Your task to perform on an android device: Clear all items from cart on walmart. Search for logitech g502 on walmart, select the first entry, and add it to the cart. Image 0: 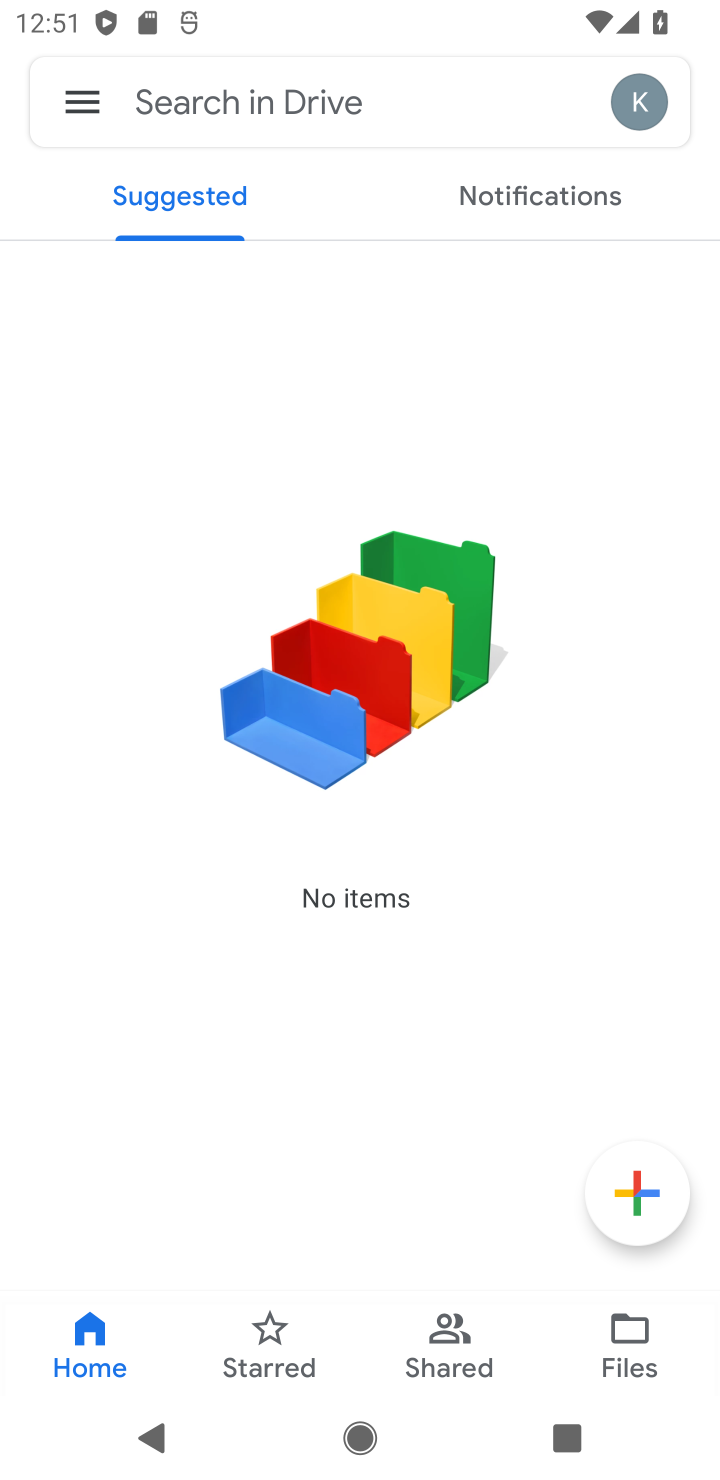
Step 0: press home button
Your task to perform on an android device: Clear all items from cart on walmart. Search for logitech g502 on walmart, select the first entry, and add it to the cart. Image 1: 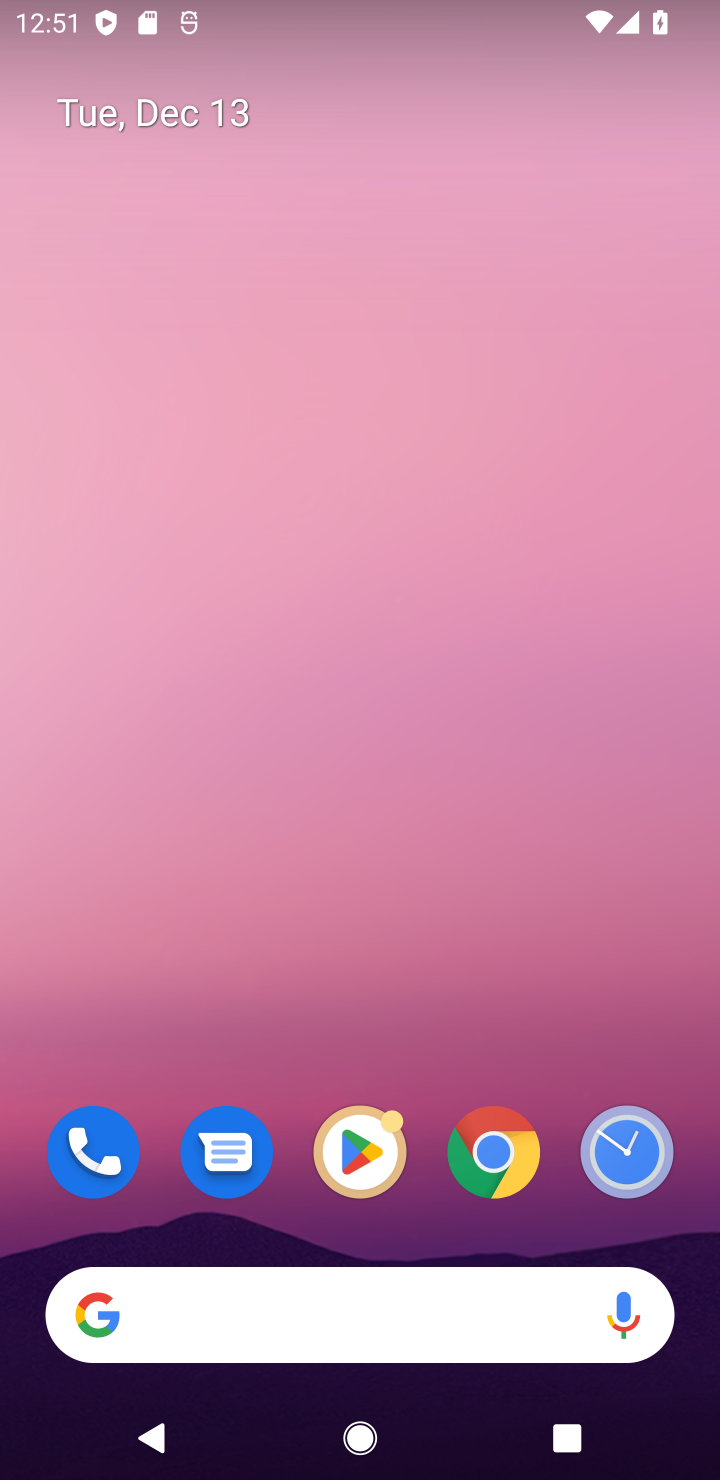
Step 1: drag from (379, 1158) to (374, 541)
Your task to perform on an android device: Clear all items from cart on walmart. Search for logitech g502 on walmart, select the first entry, and add it to the cart. Image 2: 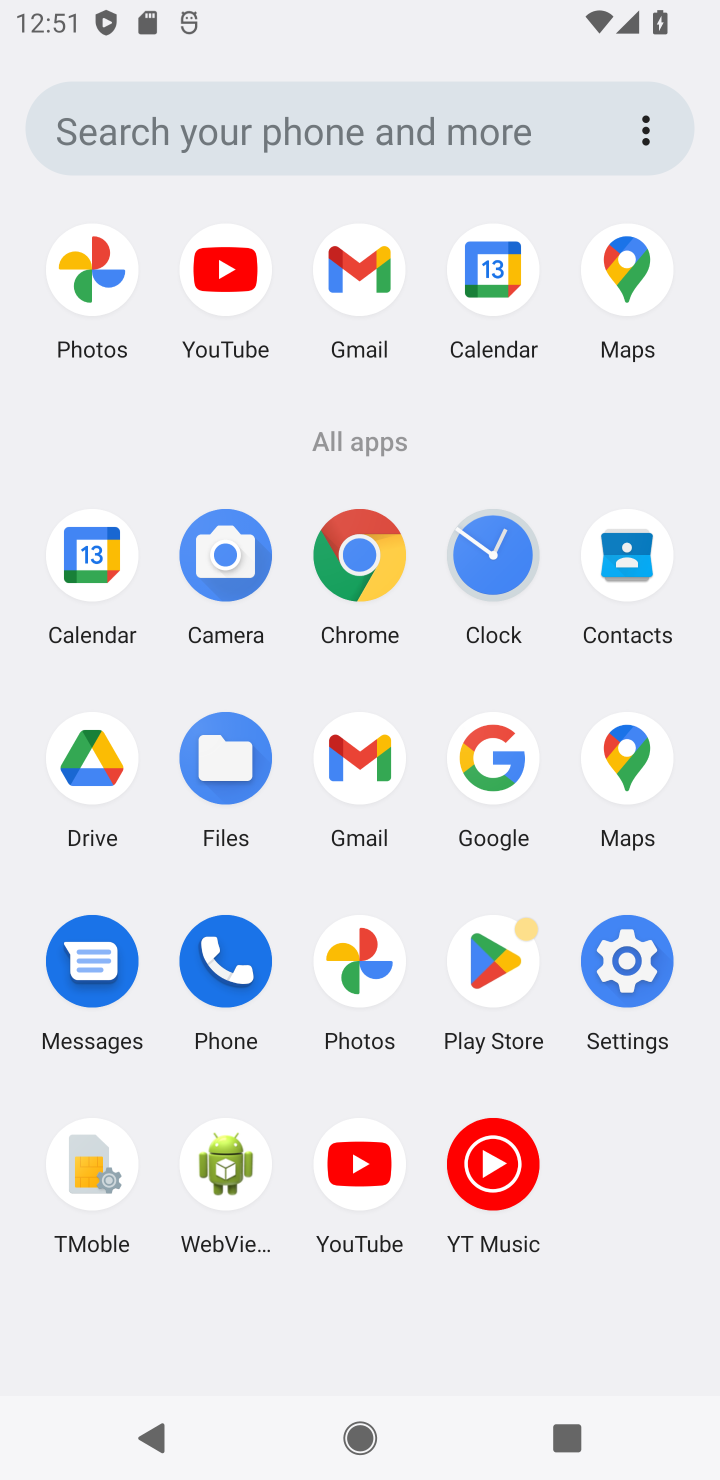
Step 2: click (491, 760)
Your task to perform on an android device: Clear all items from cart on walmart. Search for logitech g502 on walmart, select the first entry, and add it to the cart. Image 3: 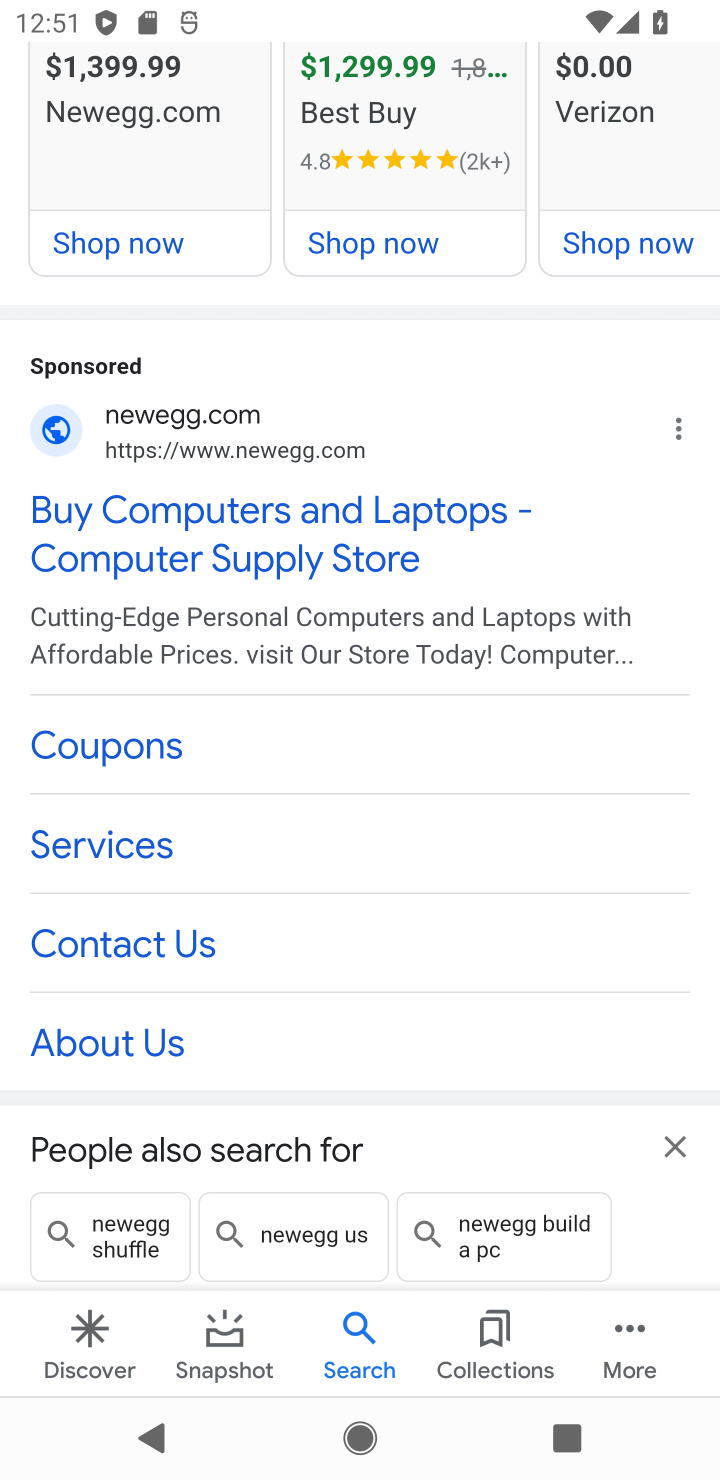
Step 3: drag from (270, 507) to (224, 1105)
Your task to perform on an android device: Clear all items from cart on walmart. Search for logitech g502 on walmart, select the first entry, and add it to the cart. Image 4: 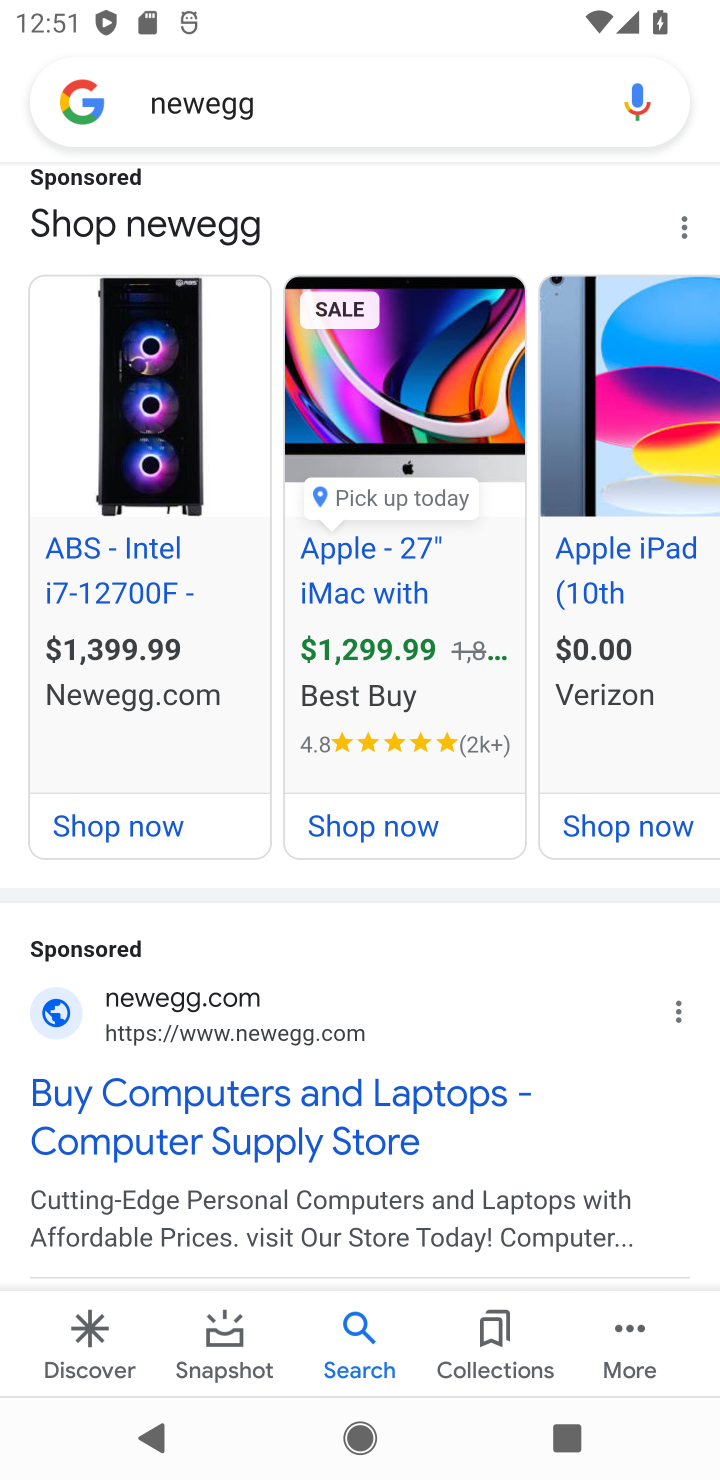
Step 4: drag from (311, 254) to (408, 928)
Your task to perform on an android device: Clear all items from cart on walmart. Search for logitech g502 on walmart, select the first entry, and add it to the cart. Image 5: 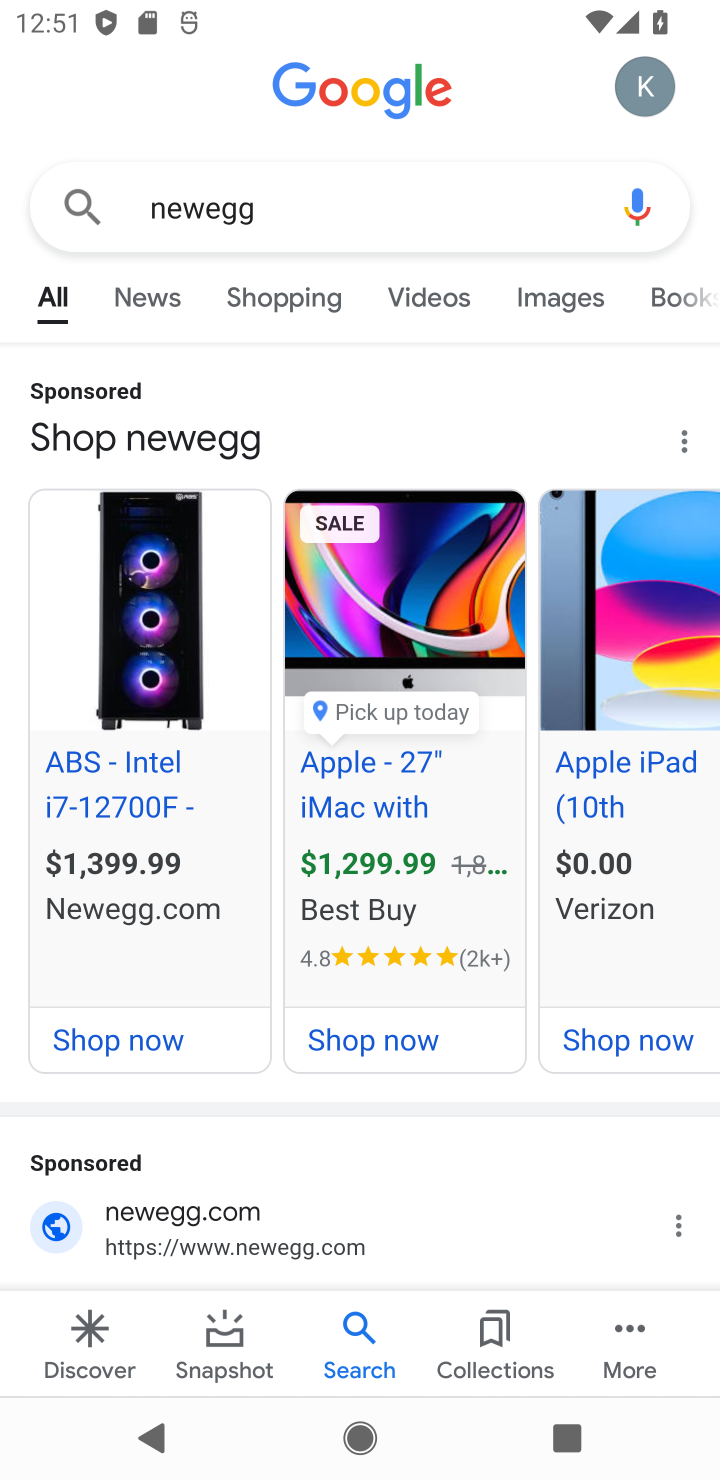
Step 5: click (236, 198)
Your task to perform on an android device: Clear all items from cart on walmart. Search for logitech g502 on walmart, select the first entry, and add it to the cart. Image 6: 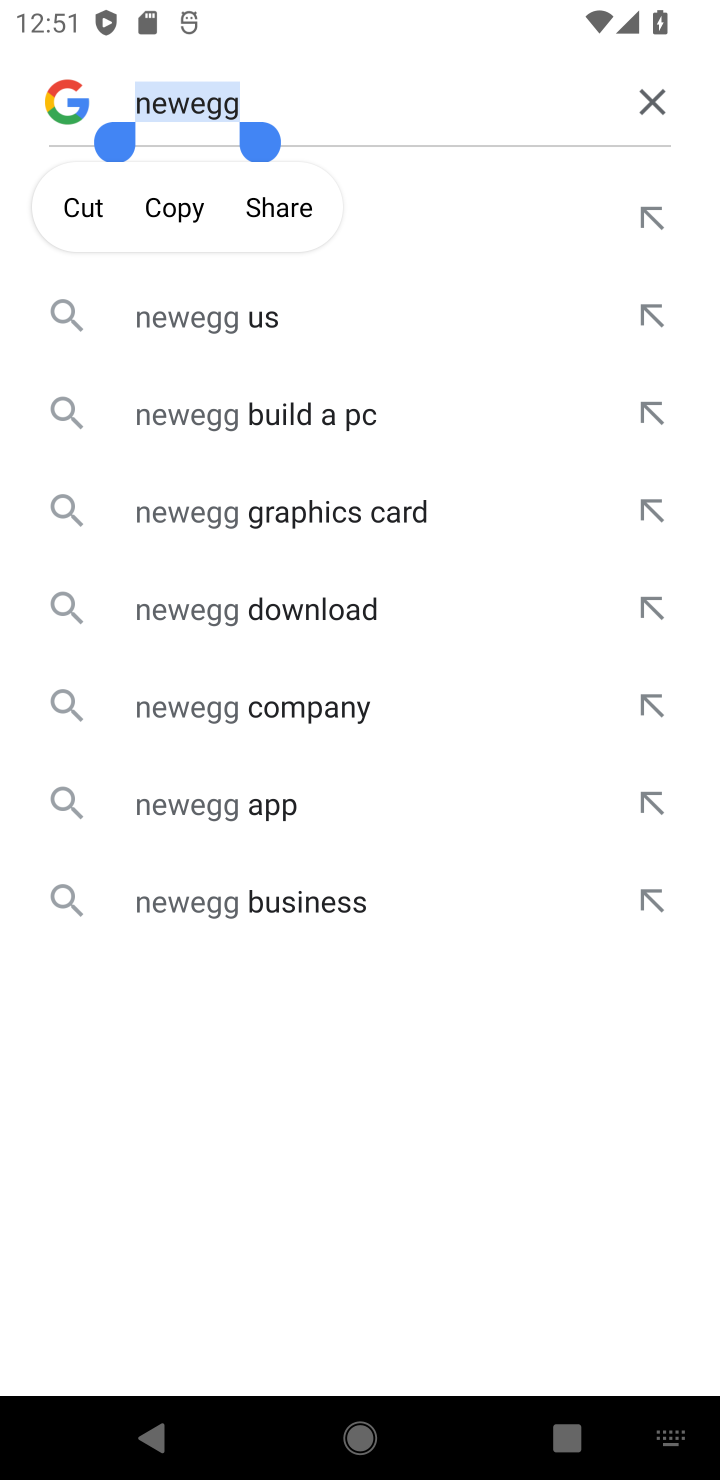
Step 6: click (645, 97)
Your task to perform on an android device: Clear all items from cart on walmart. Search for logitech g502 on walmart, select the first entry, and add it to the cart. Image 7: 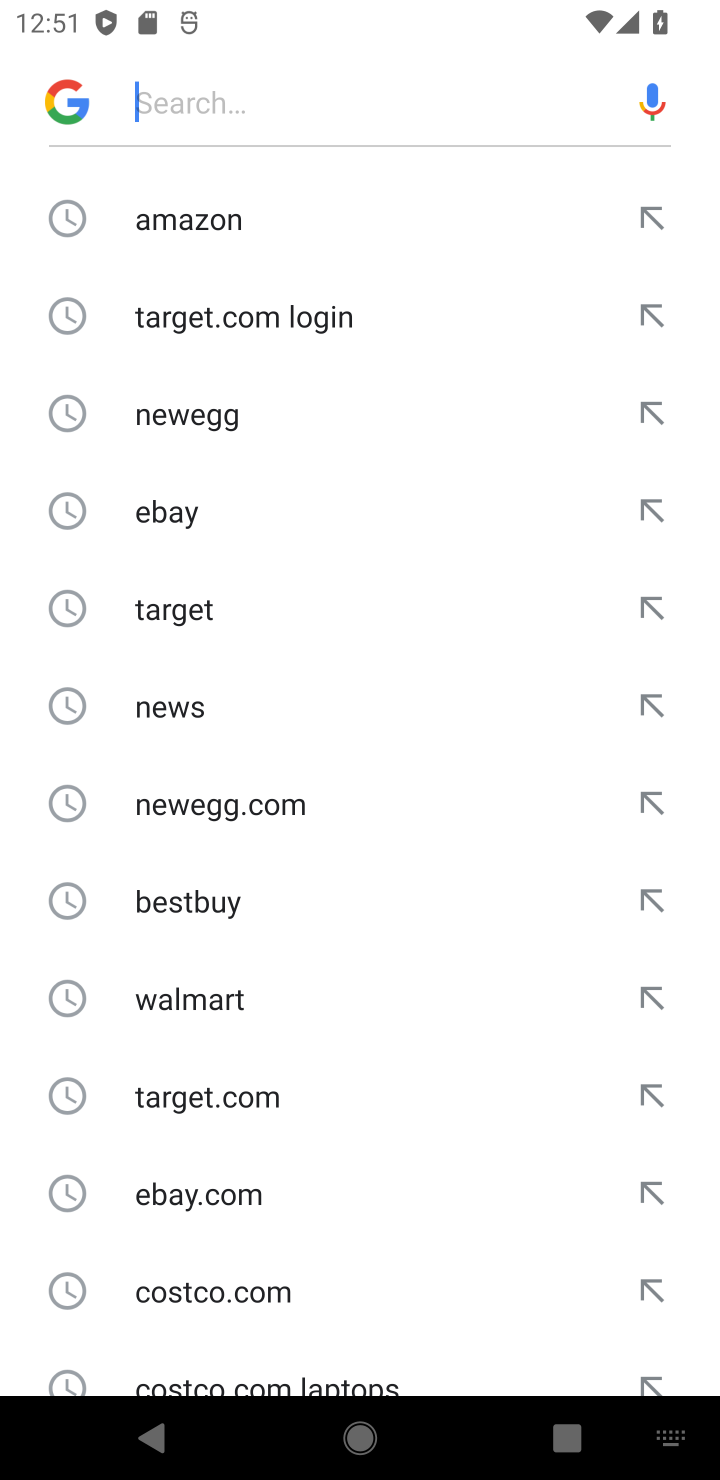
Step 7: click (196, 1013)
Your task to perform on an android device: Clear all items from cart on walmart. Search for logitech g502 on walmart, select the first entry, and add it to the cart. Image 8: 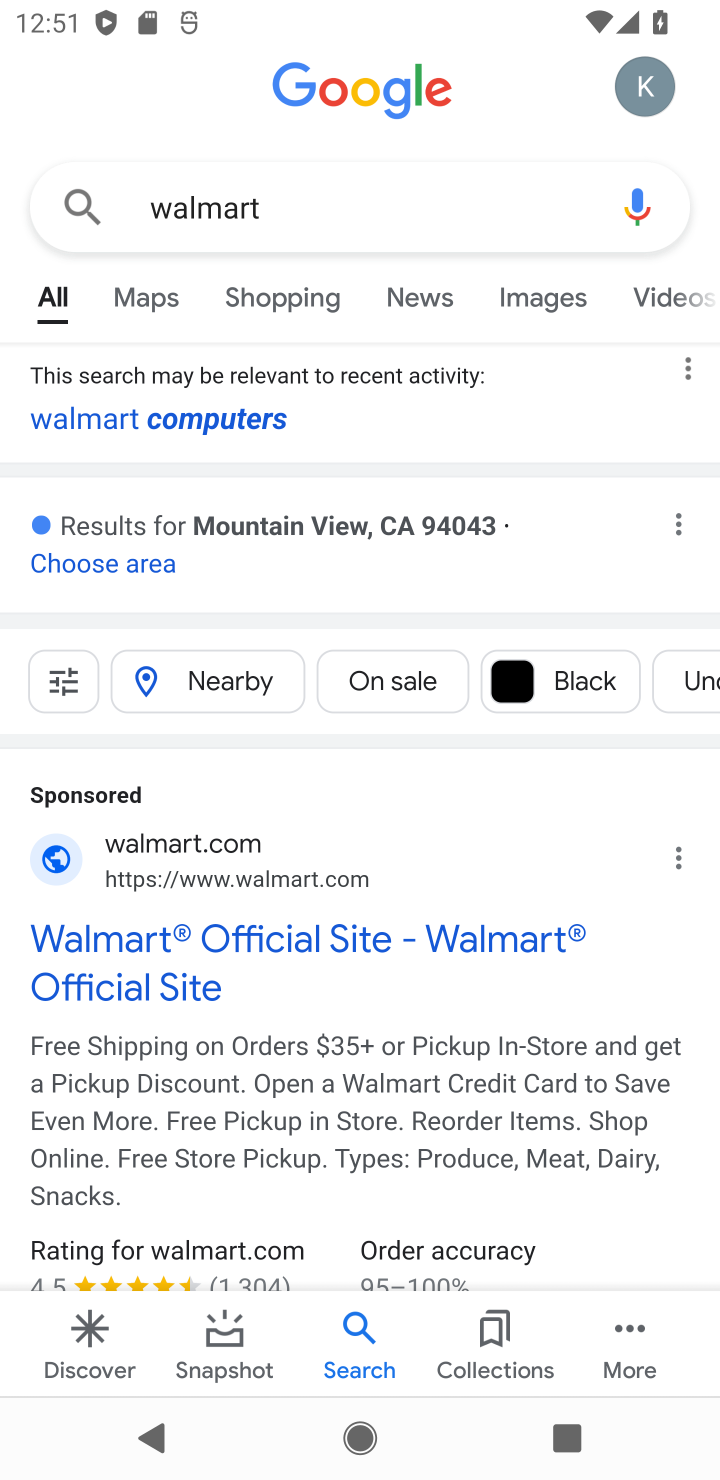
Step 8: click (203, 941)
Your task to perform on an android device: Clear all items from cart on walmart. Search for logitech g502 on walmart, select the first entry, and add it to the cart. Image 9: 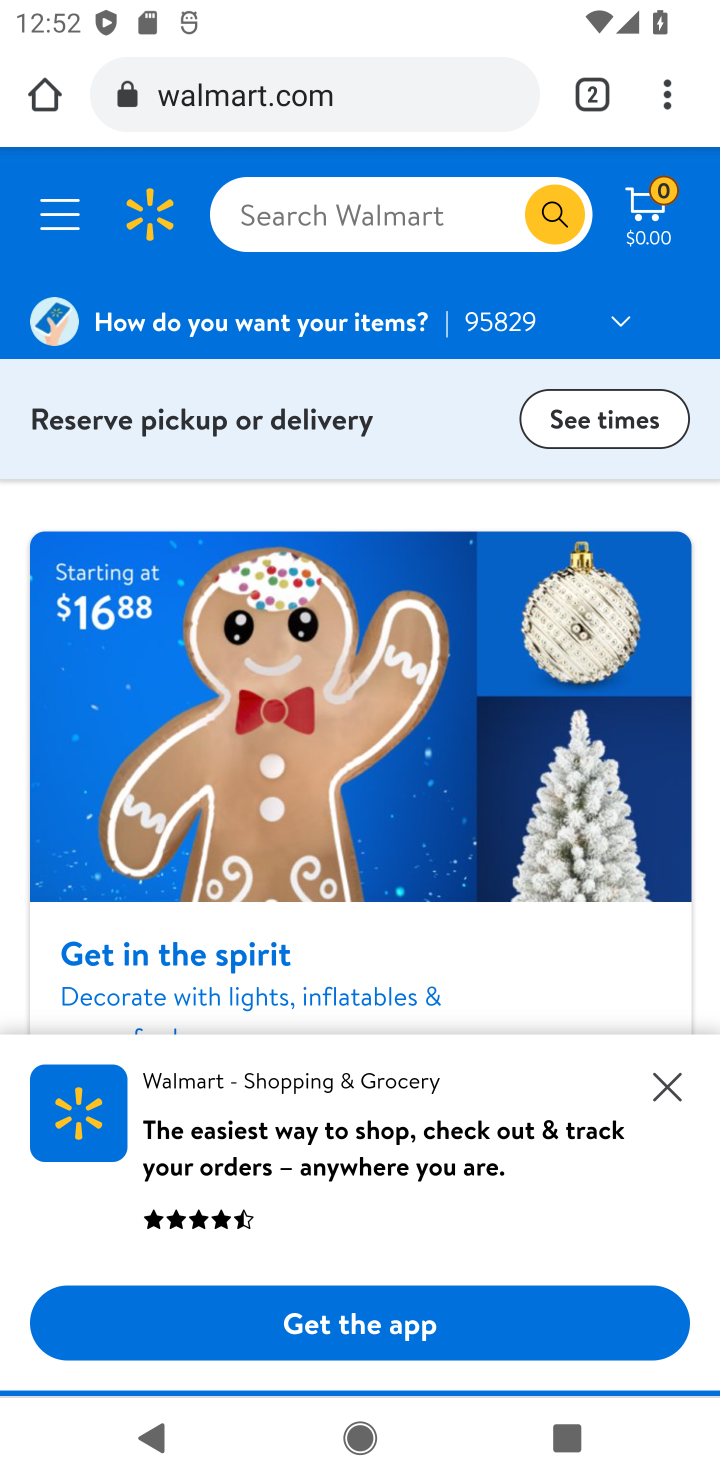
Step 9: click (331, 219)
Your task to perform on an android device: Clear all items from cart on walmart. Search for logitech g502 on walmart, select the first entry, and add it to the cart. Image 10: 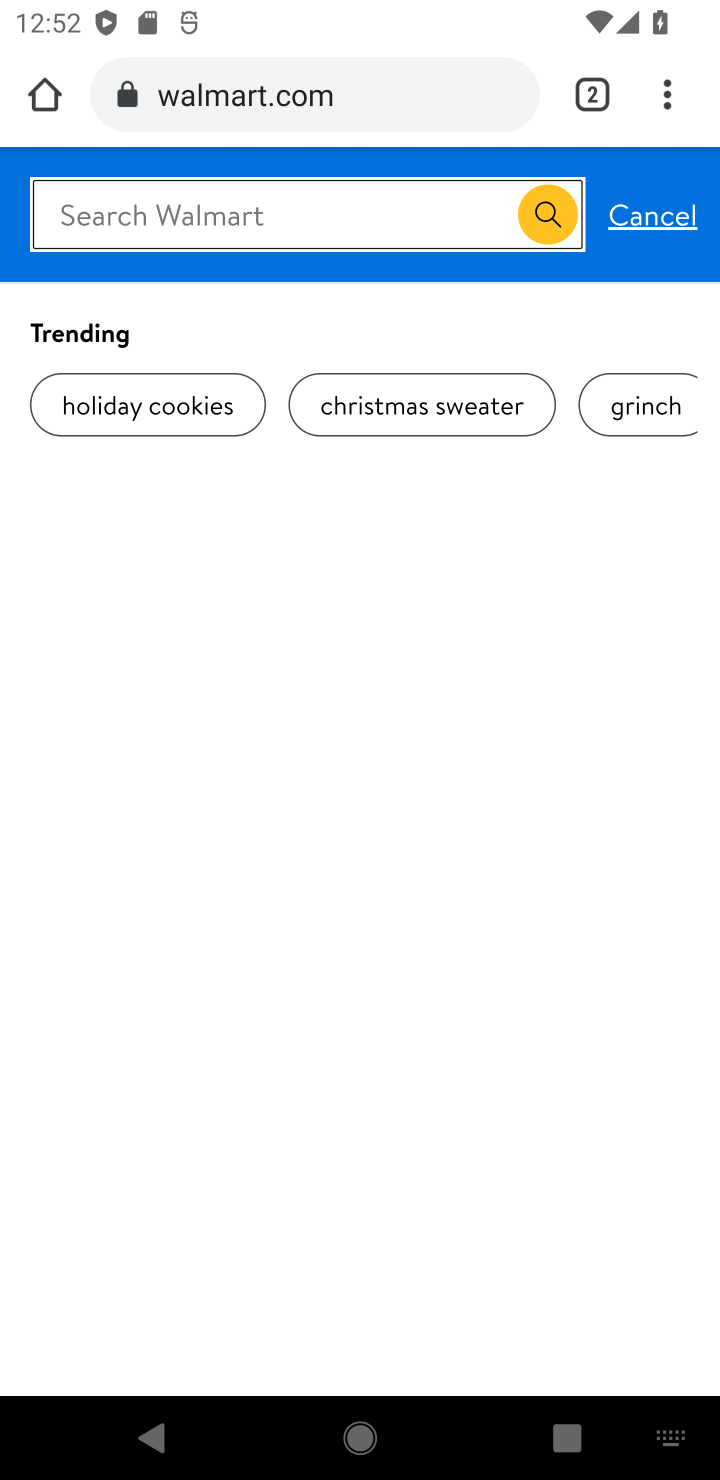
Step 10: type "logitech g502"
Your task to perform on an android device: Clear all items from cart on walmart. Search for logitech g502 on walmart, select the first entry, and add it to the cart. Image 11: 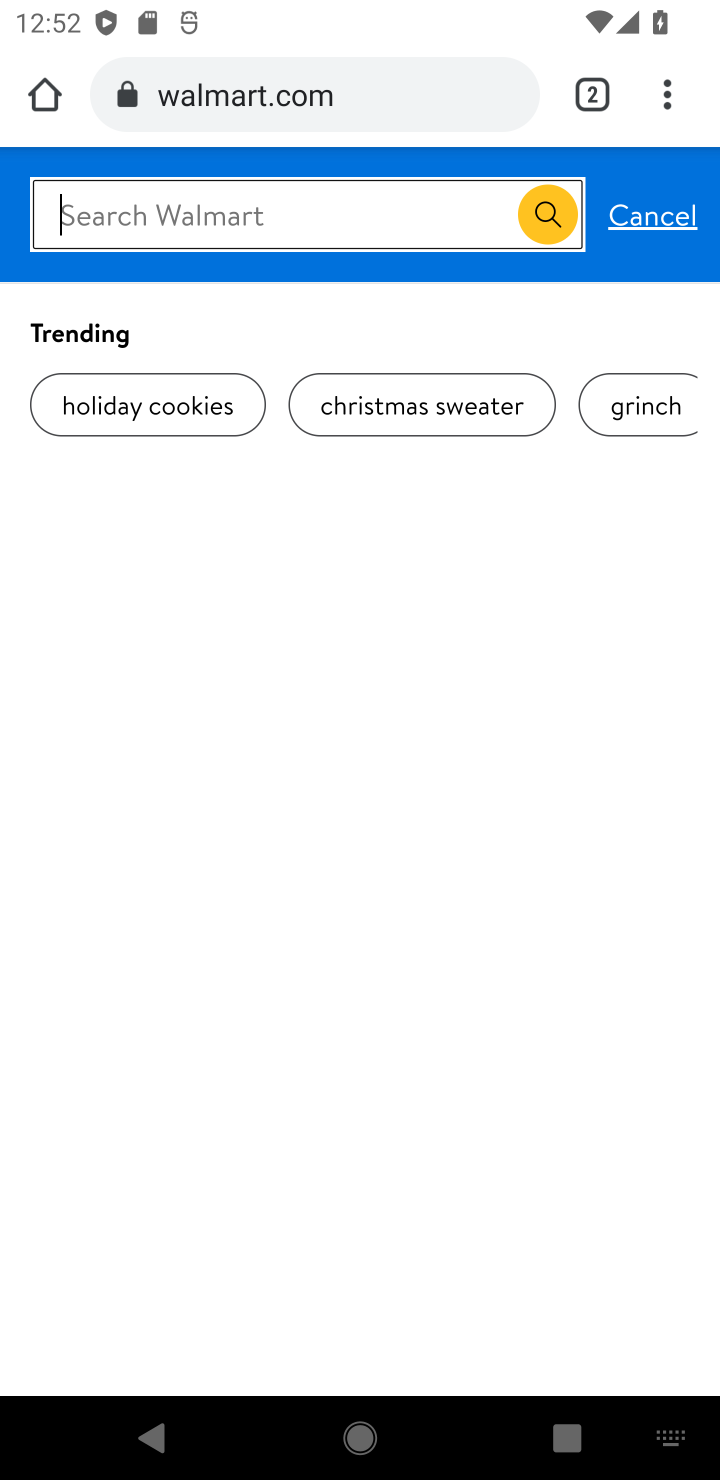
Step 11: click (542, 217)
Your task to perform on an android device: Clear all items from cart on walmart. Search for logitech g502 on walmart, select the first entry, and add it to the cart. Image 12: 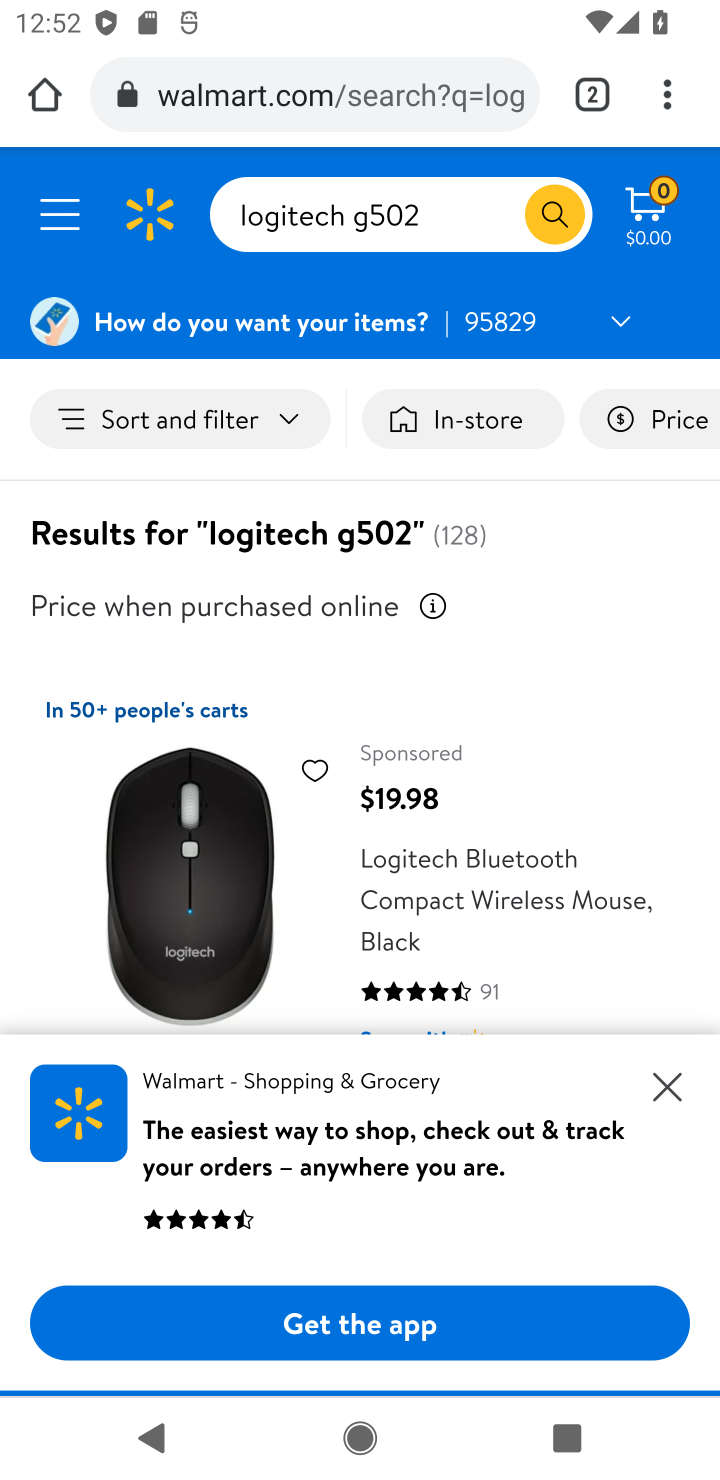
Step 12: click (659, 1076)
Your task to perform on an android device: Clear all items from cart on walmart. Search for logitech g502 on walmart, select the first entry, and add it to the cart. Image 13: 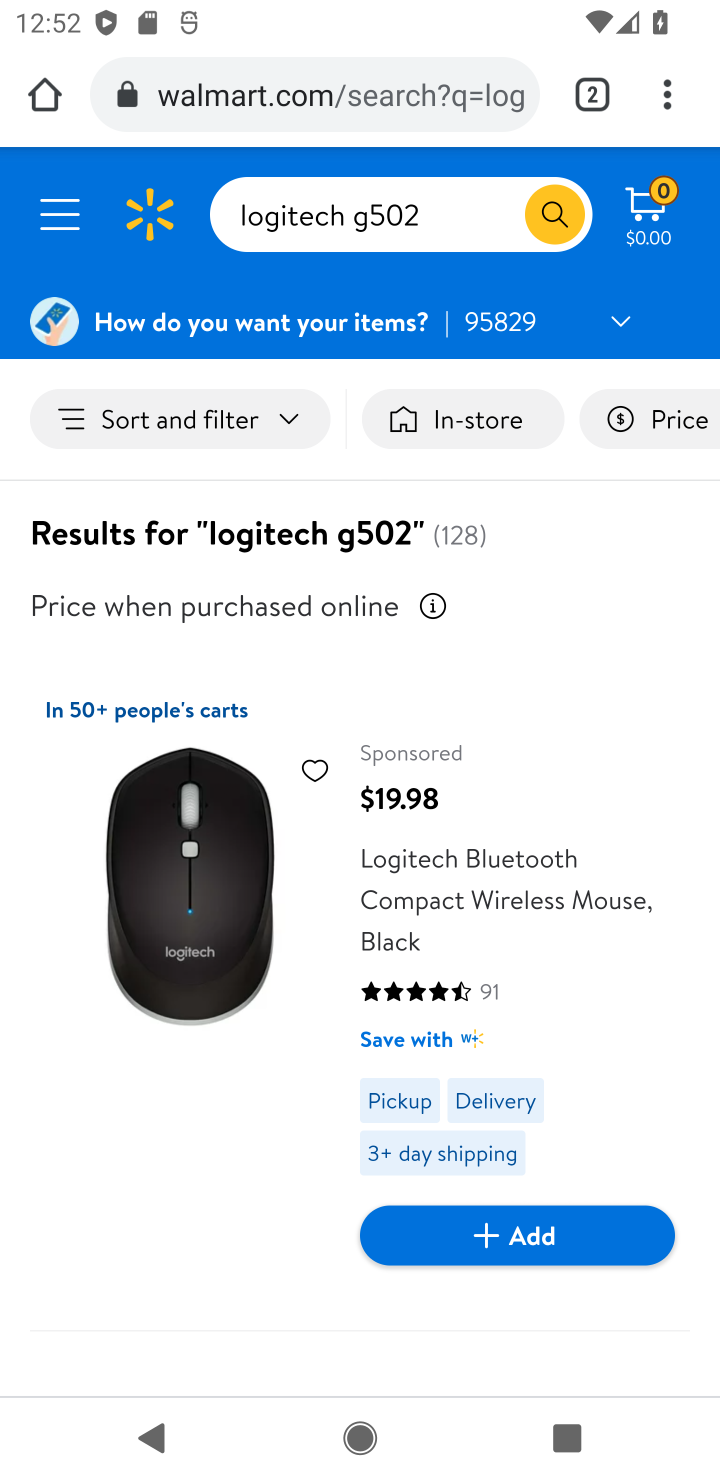
Step 13: click (527, 1239)
Your task to perform on an android device: Clear all items from cart on walmart. Search for logitech g502 on walmart, select the first entry, and add it to the cart. Image 14: 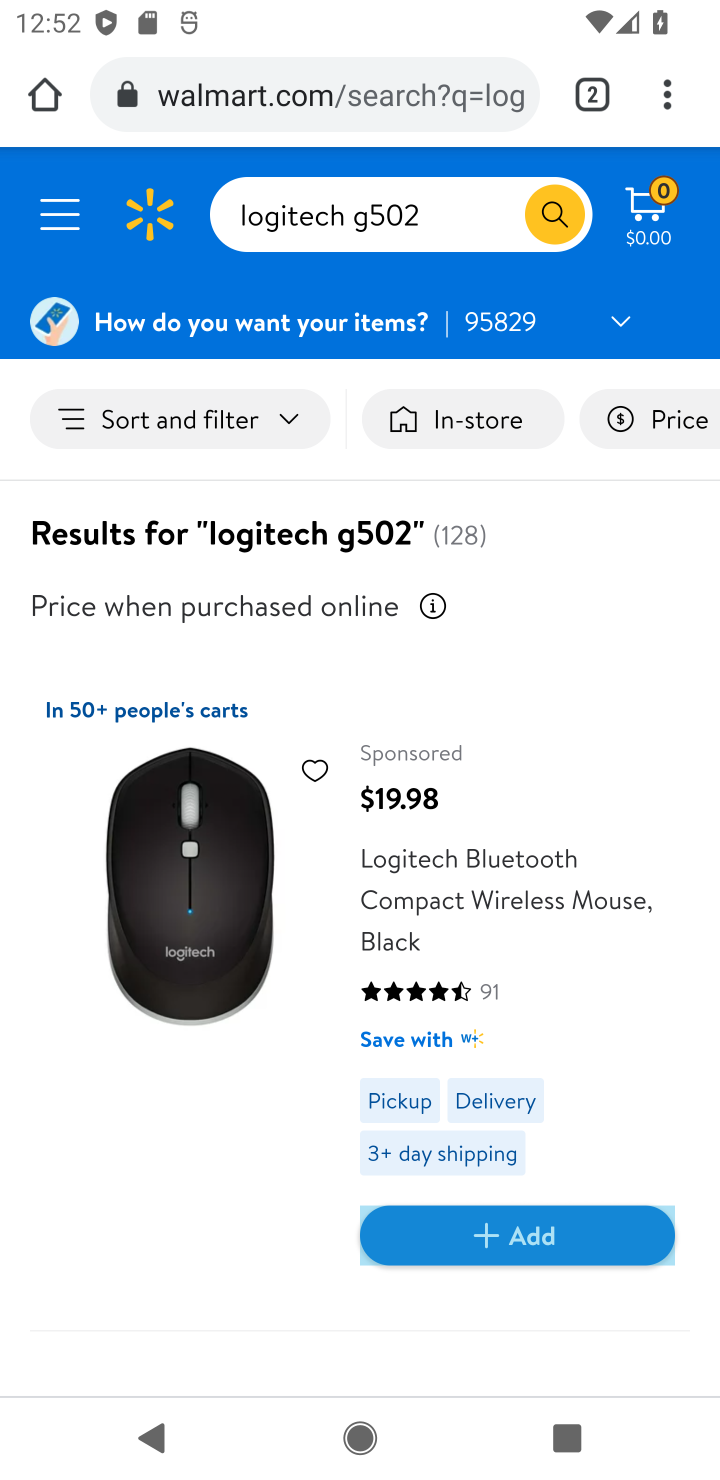
Step 14: click (527, 1239)
Your task to perform on an android device: Clear all items from cart on walmart. Search for logitech g502 on walmart, select the first entry, and add it to the cart. Image 15: 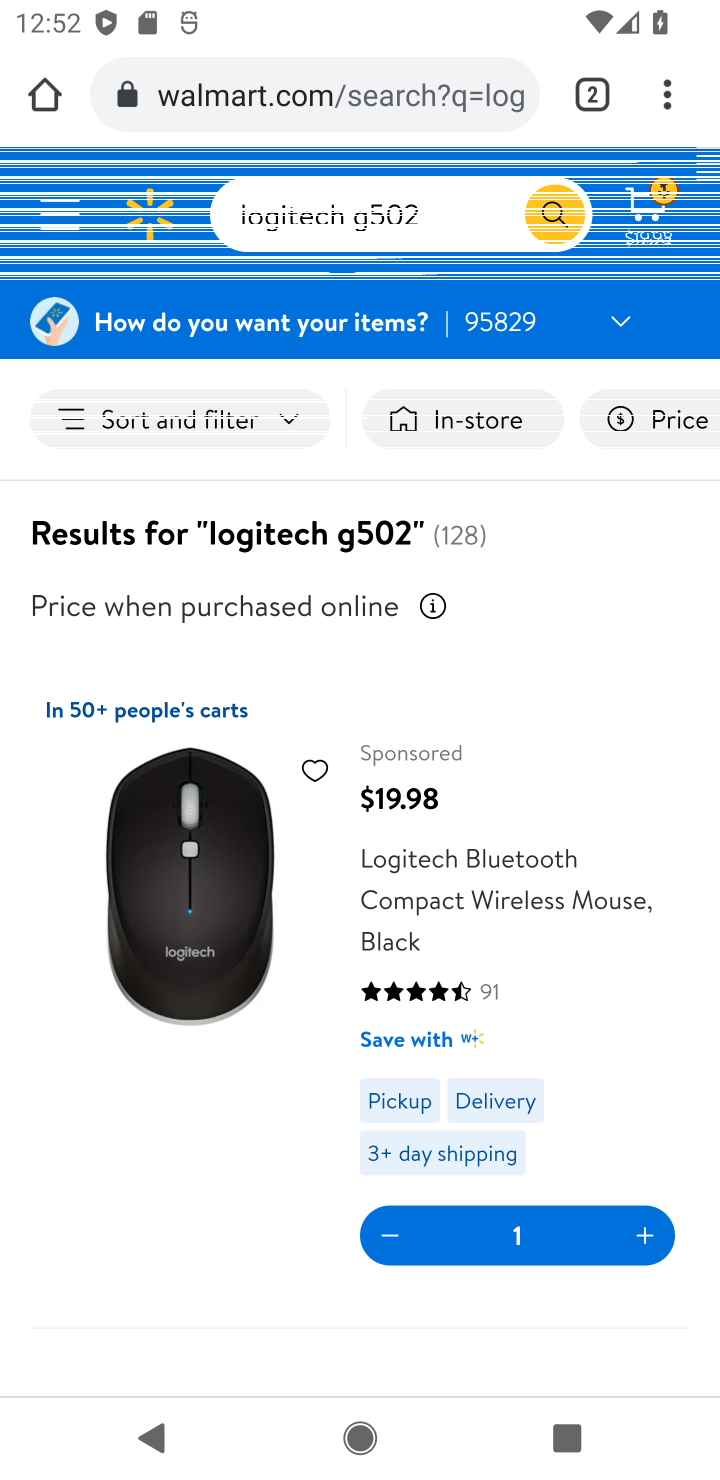
Step 15: click (666, 205)
Your task to perform on an android device: Clear all items from cart on walmart. Search for logitech g502 on walmart, select the first entry, and add it to the cart. Image 16: 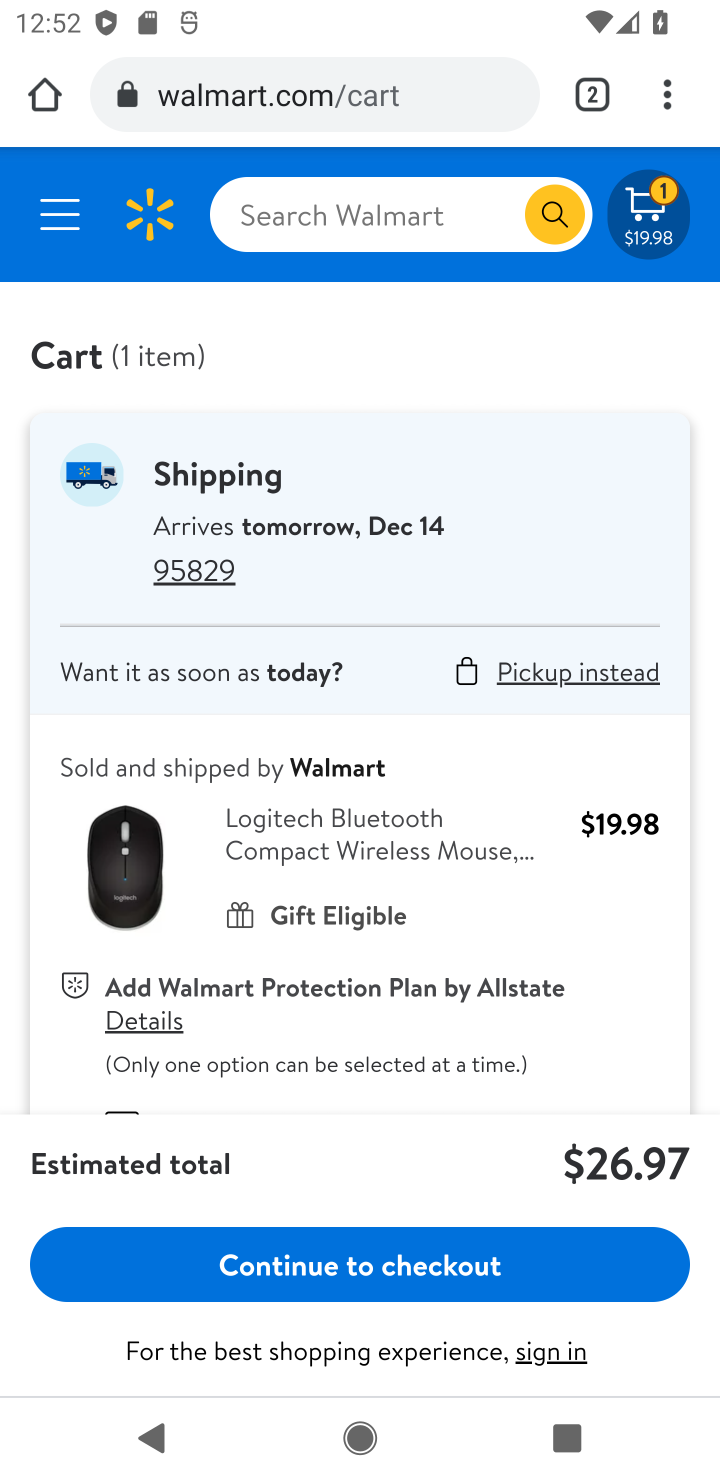
Step 16: click (334, 1272)
Your task to perform on an android device: Clear all items from cart on walmart. Search for logitech g502 on walmart, select the first entry, and add it to the cart. Image 17: 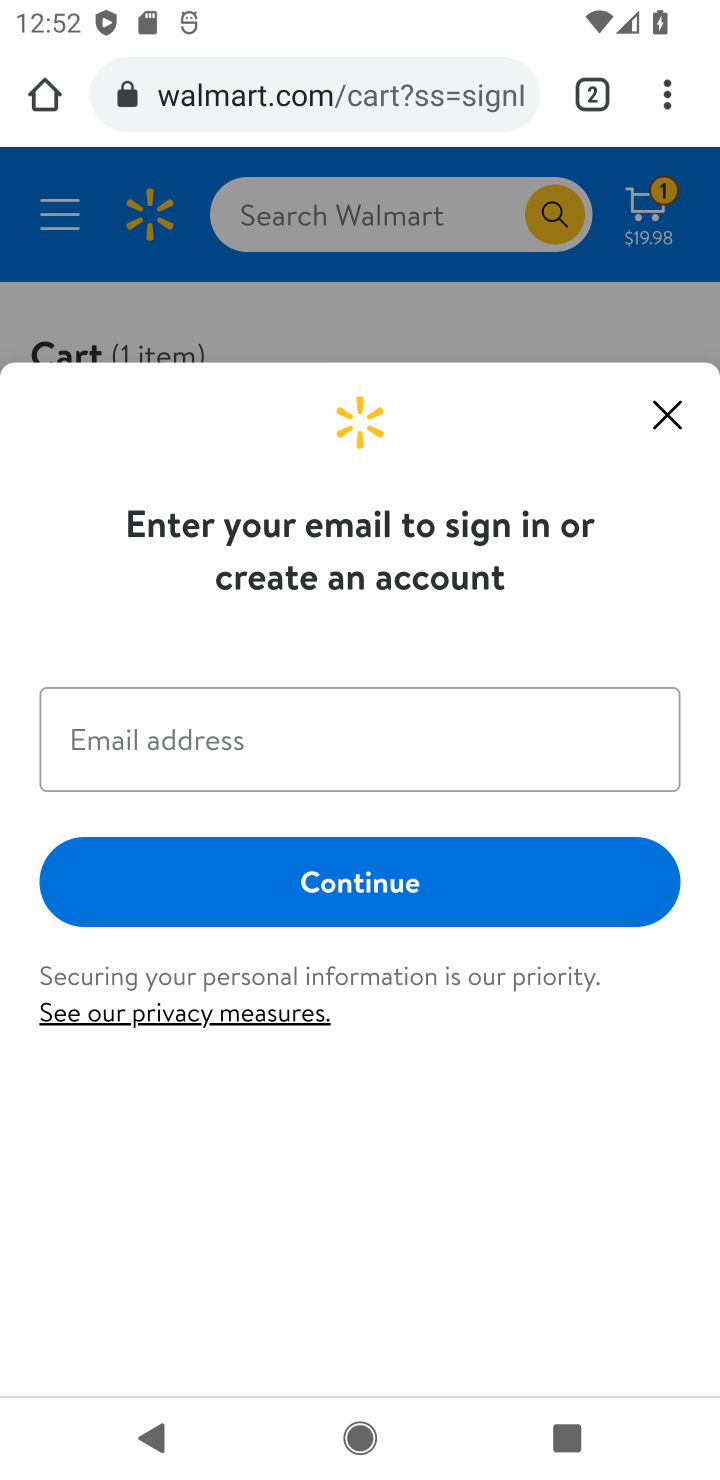
Step 17: task complete